Your task to perform on an android device: Open the stopwatch Image 0: 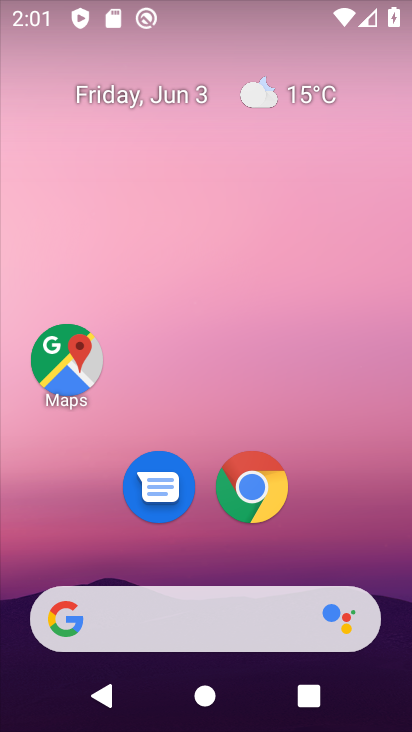
Step 0: drag from (334, 565) to (201, 2)
Your task to perform on an android device: Open the stopwatch Image 1: 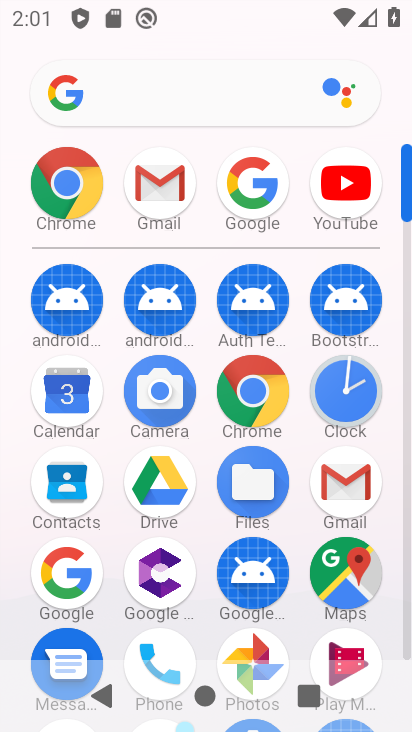
Step 1: click (349, 396)
Your task to perform on an android device: Open the stopwatch Image 2: 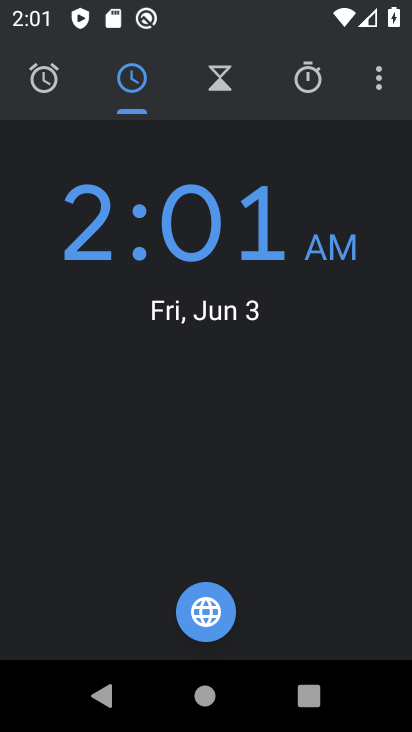
Step 2: click (375, 83)
Your task to perform on an android device: Open the stopwatch Image 3: 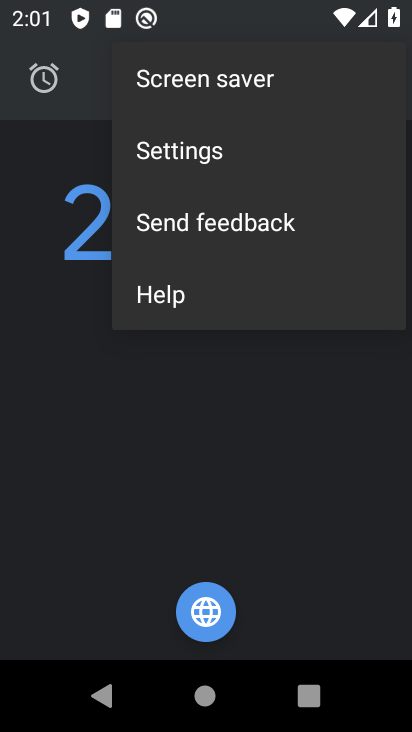
Step 3: click (302, 76)
Your task to perform on an android device: Open the stopwatch Image 4: 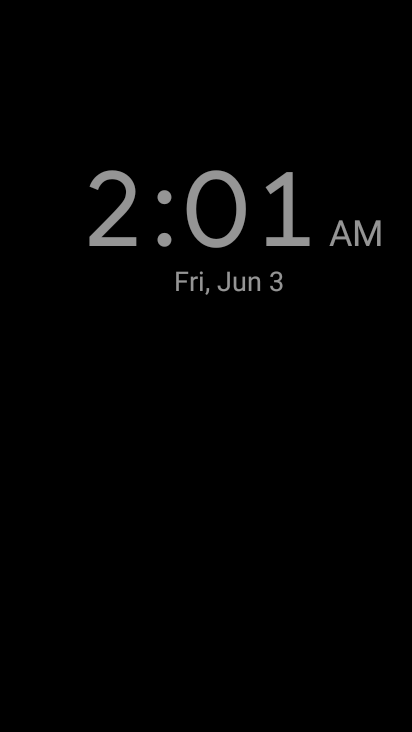
Step 4: press back button
Your task to perform on an android device: Open the stopwatch Image 5: 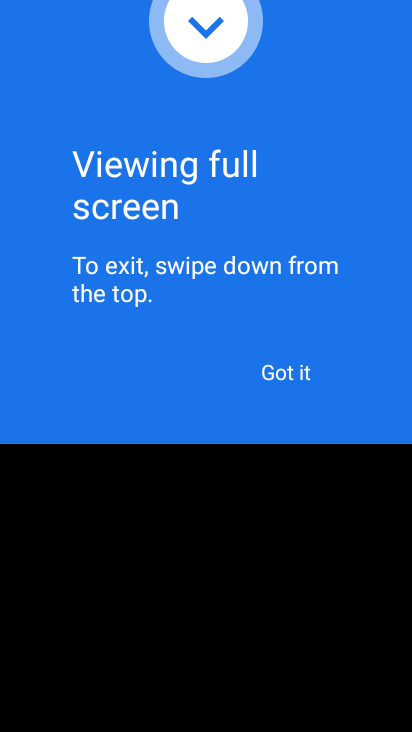
Step 5: click (285, 370)
Your task to perform on an android device: Open the stopwatch Image 6: 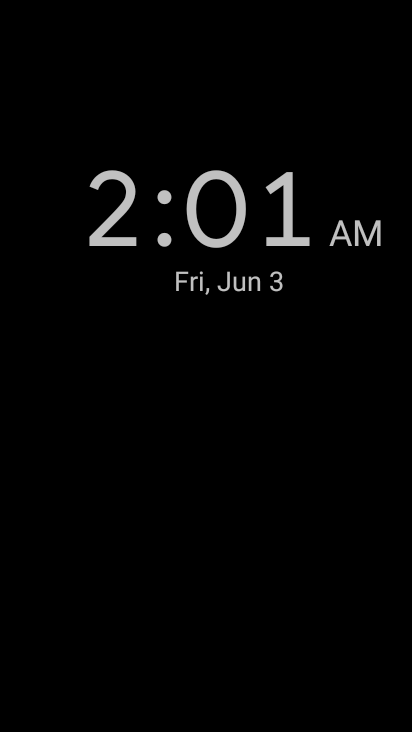
Step 6: press back button
Your task to perform on an android device: Open the stopwatch Image 7: 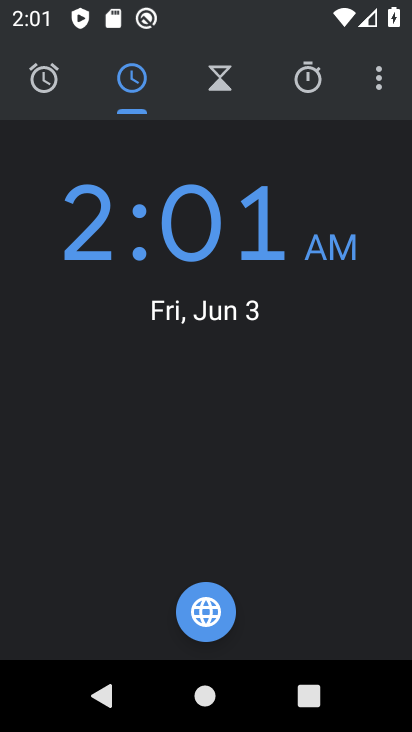
Step 7: press back button
Your task to perform on an android device: Open the stopwatch Image 8: 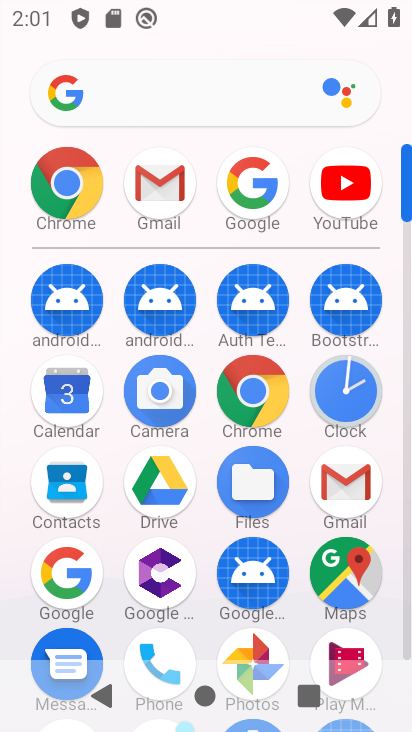
Step 8: click (330, 405)
Your task to perform on an android device: Open the stopwatch Image 9: 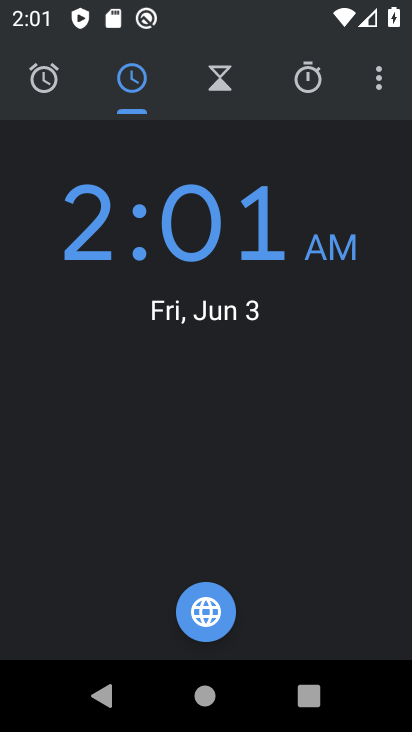
Step 9: click (305, 90)
Your task to perform on an android device: Open the stopwatch Image 10: 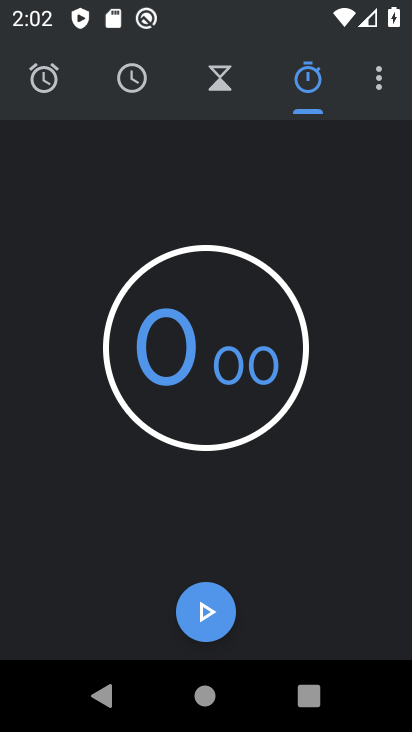
Step 10: task complete